Your task to perform on an android device: open sync settings in chrome Image 0: 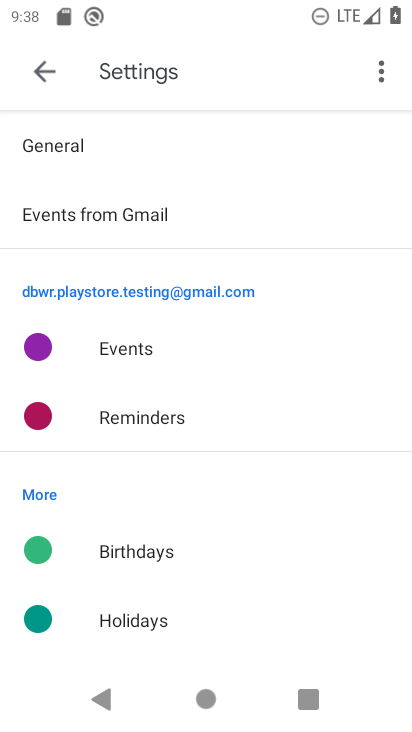
Step 0: press home button
Your task to perform on an android device: open sync settings in chrome Image 1: 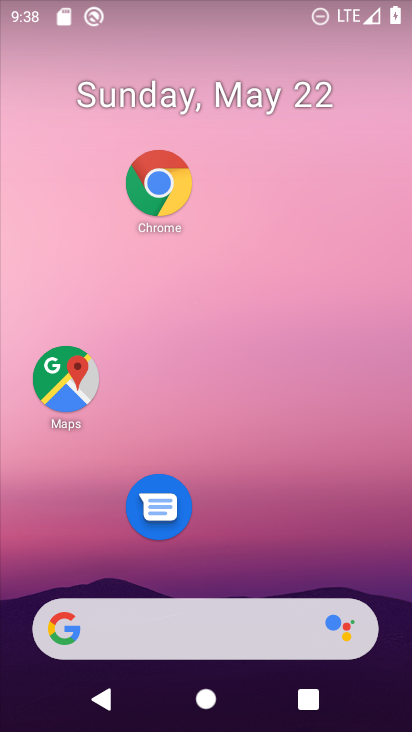
Step 1: click (148, 190)
Your task to perform on an android device: open sync settings in chrome Image 2: 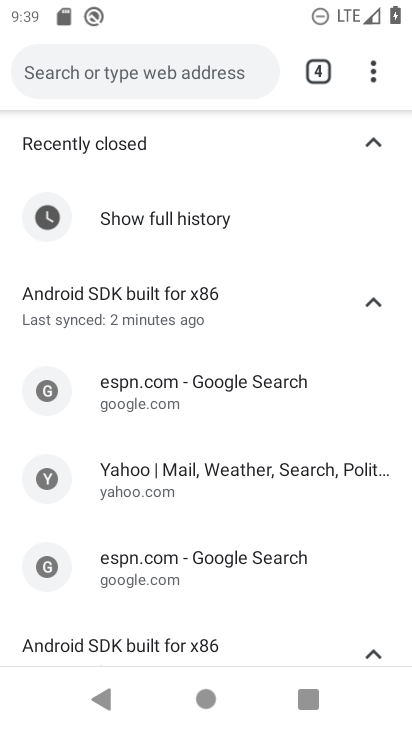
Step 2: click (379, 71)
Your task to perform on an android device: open sync settings in chrome Image 3: 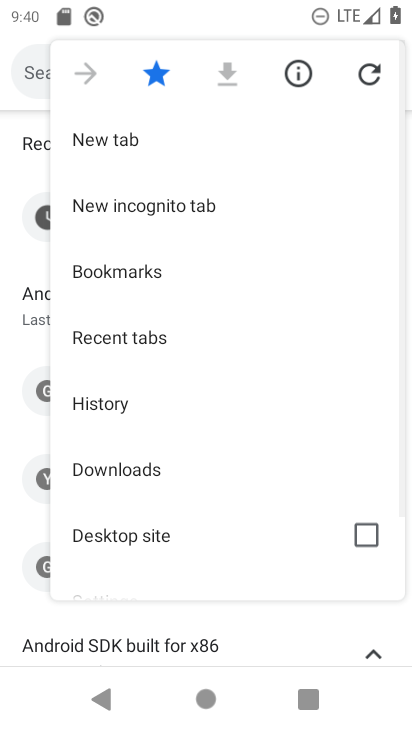
Step 3: drag from (186, 557) to (205, 109)
Your task to perform on an android device: open sync settings in chrome Image 4: 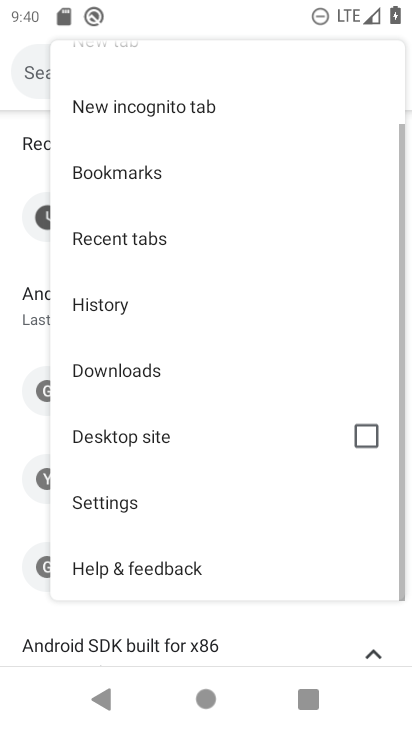
Step 4: click (146, 500)
Your task to perform on an android device: open sync settings in chrome Image 5: 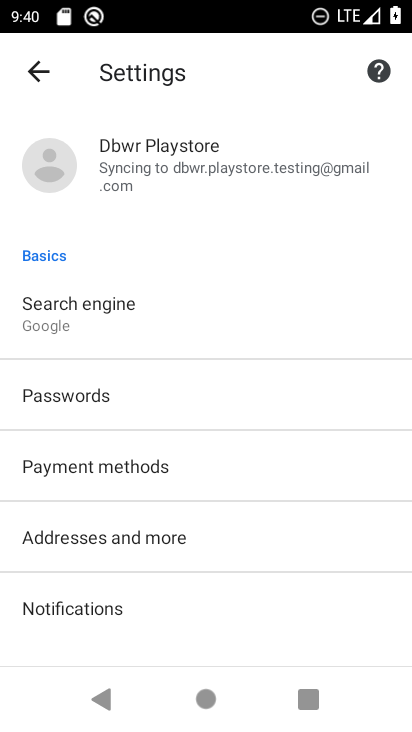
Step 5: click (248, 173)
Your task to perform on an android device: open sync settings in chrome Image 6: 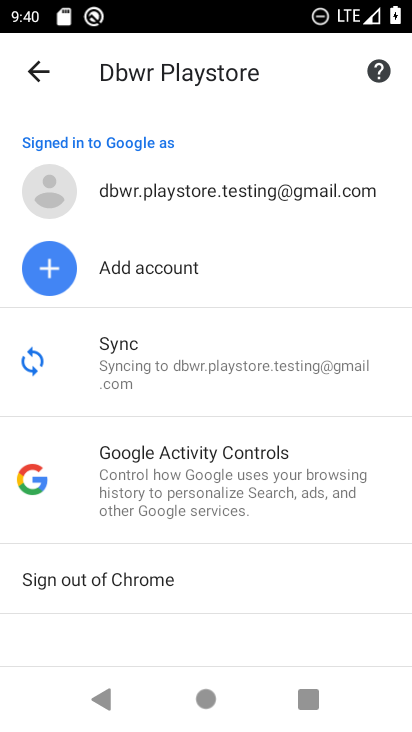
Step 6: task complete